Your task to perform on an android device: Open Amazon Image 0: 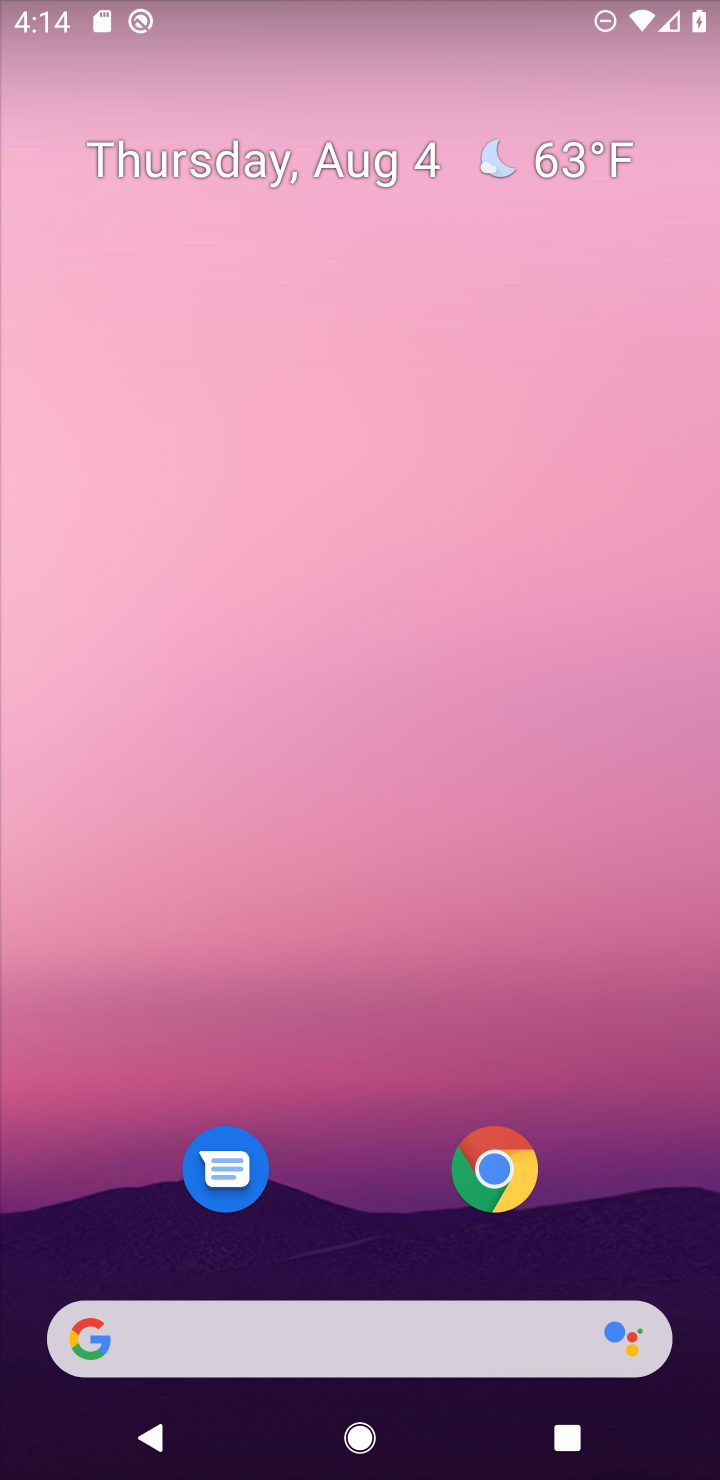
Step 0: click (513, 1190)
Your task to perform on an android device: Open Amazon Image 1: 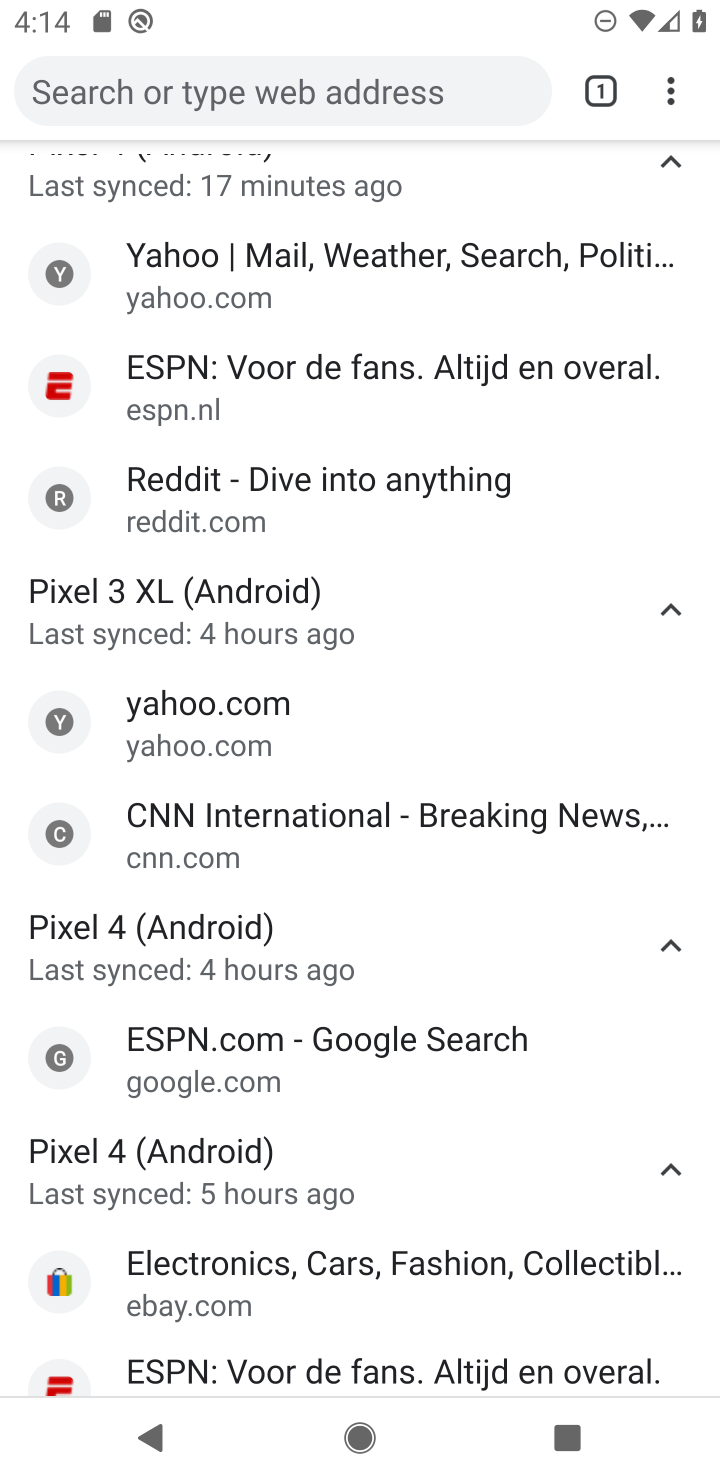
Step 1: click (354, 92)
Your task to perform on an android device: Open Amazon Image 2: 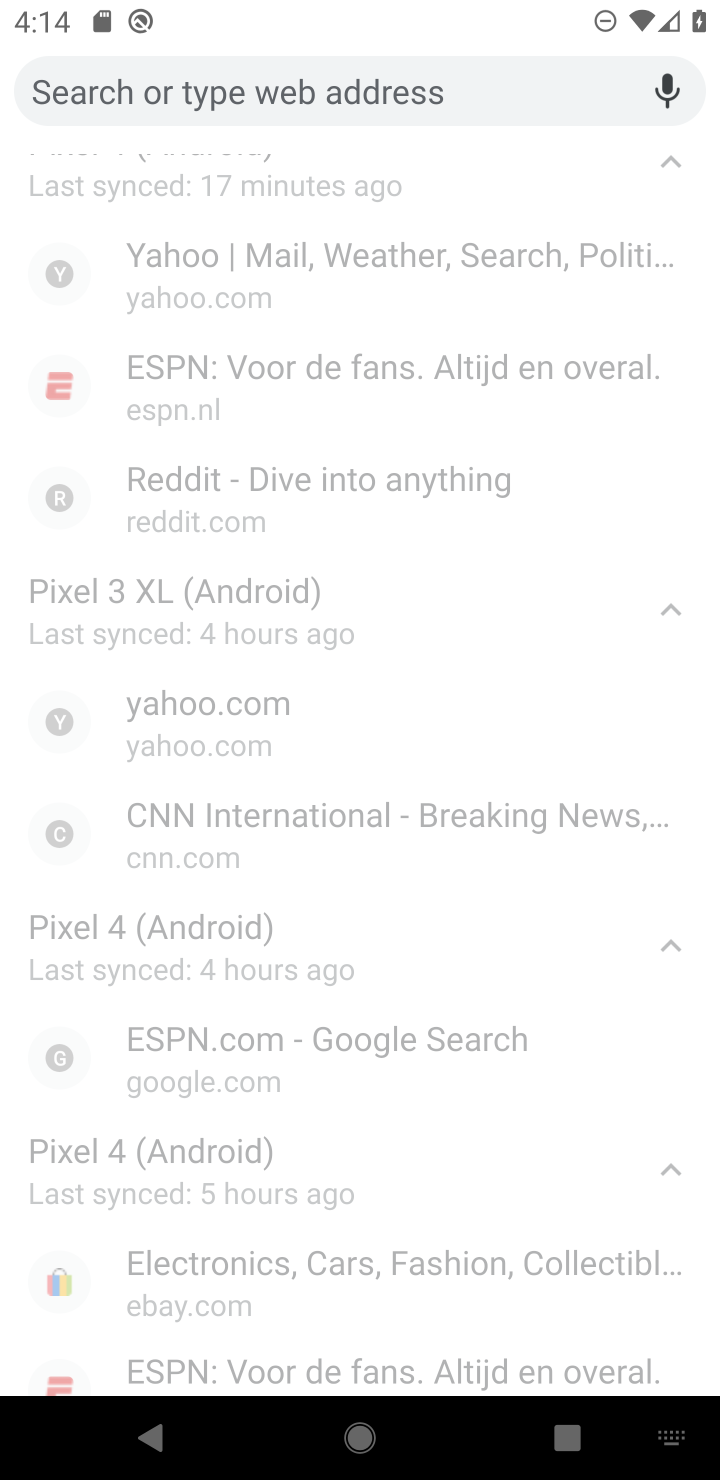
Step 2: type "Amazon"
Your task to perform on an android device: Open Amazon Image 3: 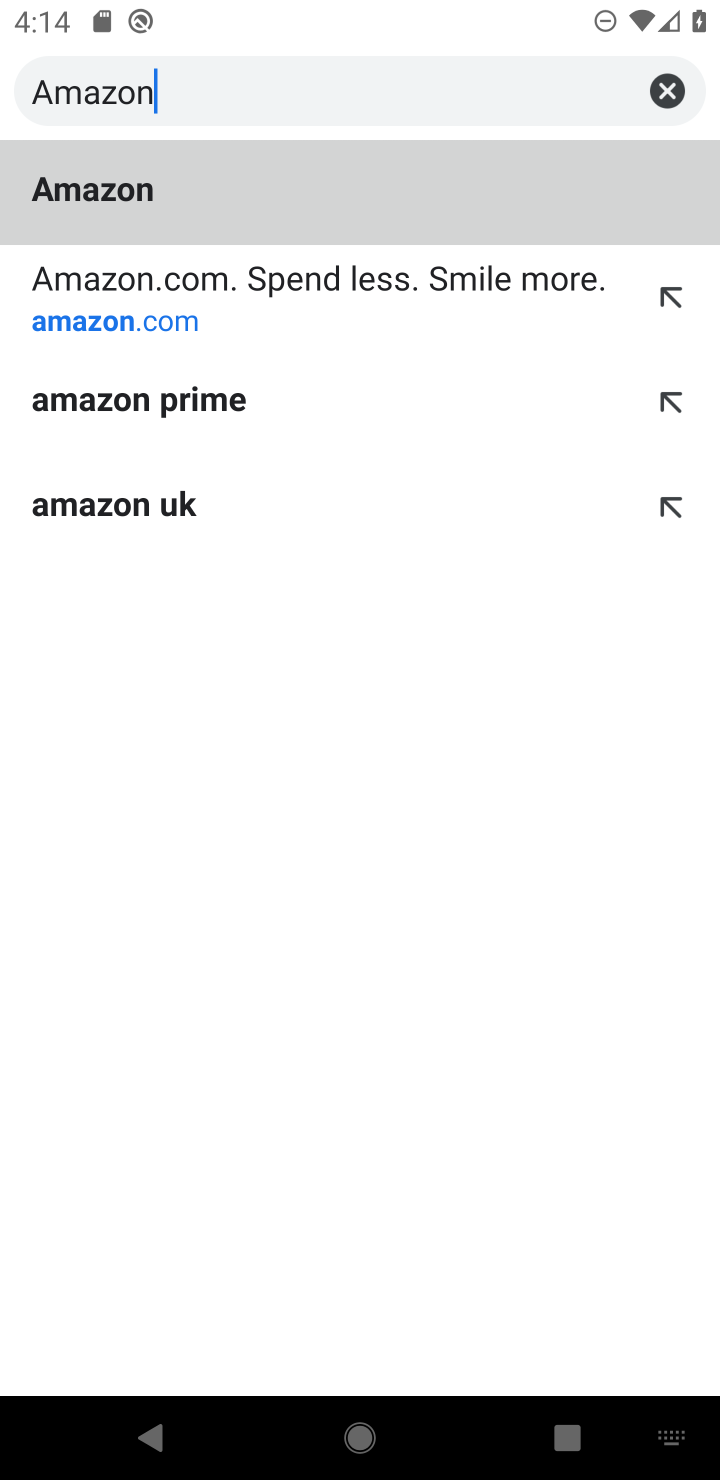
Step 3: click (332, 85)
Your task to perform on an android device: Open Amazon Image 4: 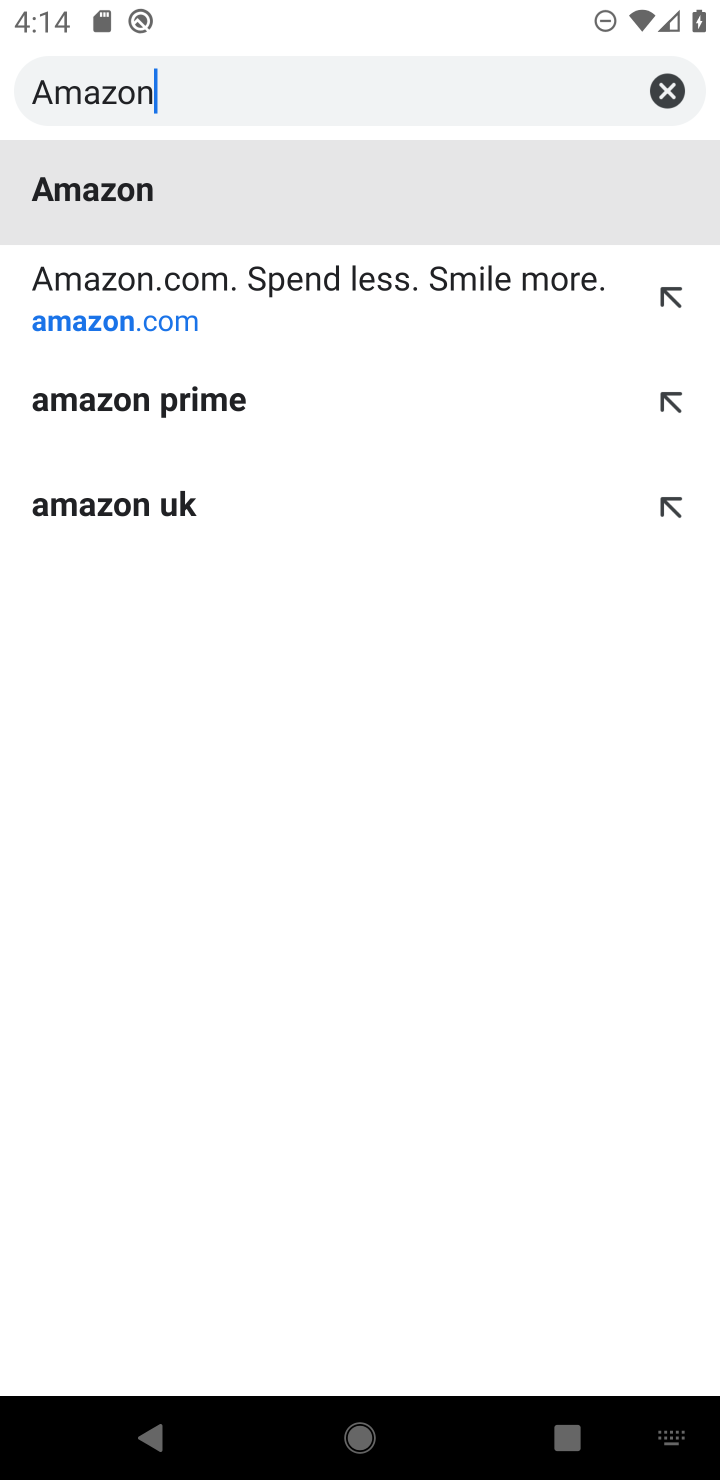
Step 4: click (173, 296)
Your task to perform on an android device: Open Amazon Image 5: 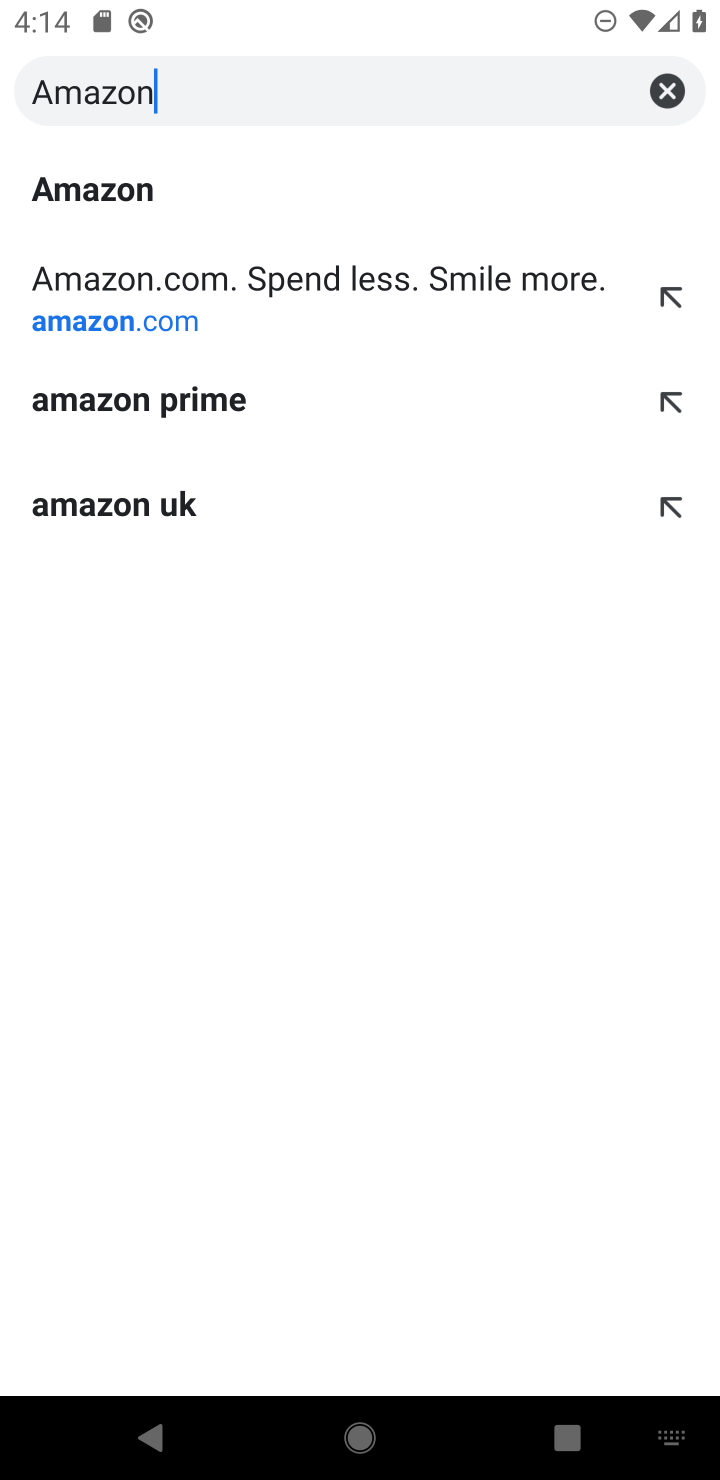
Step 5: click (103, 316)
Your task to perform on an android device: Open Amazon Image 6: 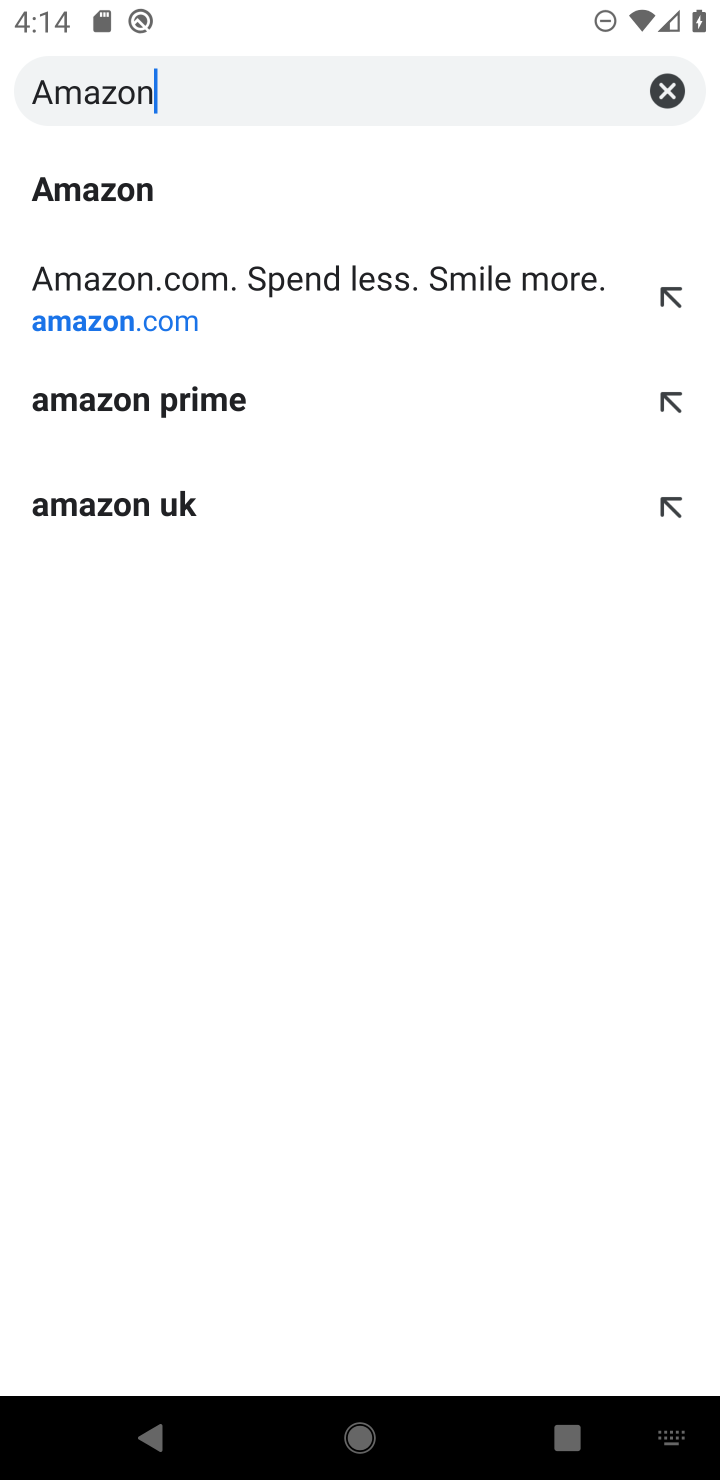
Step 6: click (243, 313)
Your task to perform on an android device: Open Amazon Image 7: 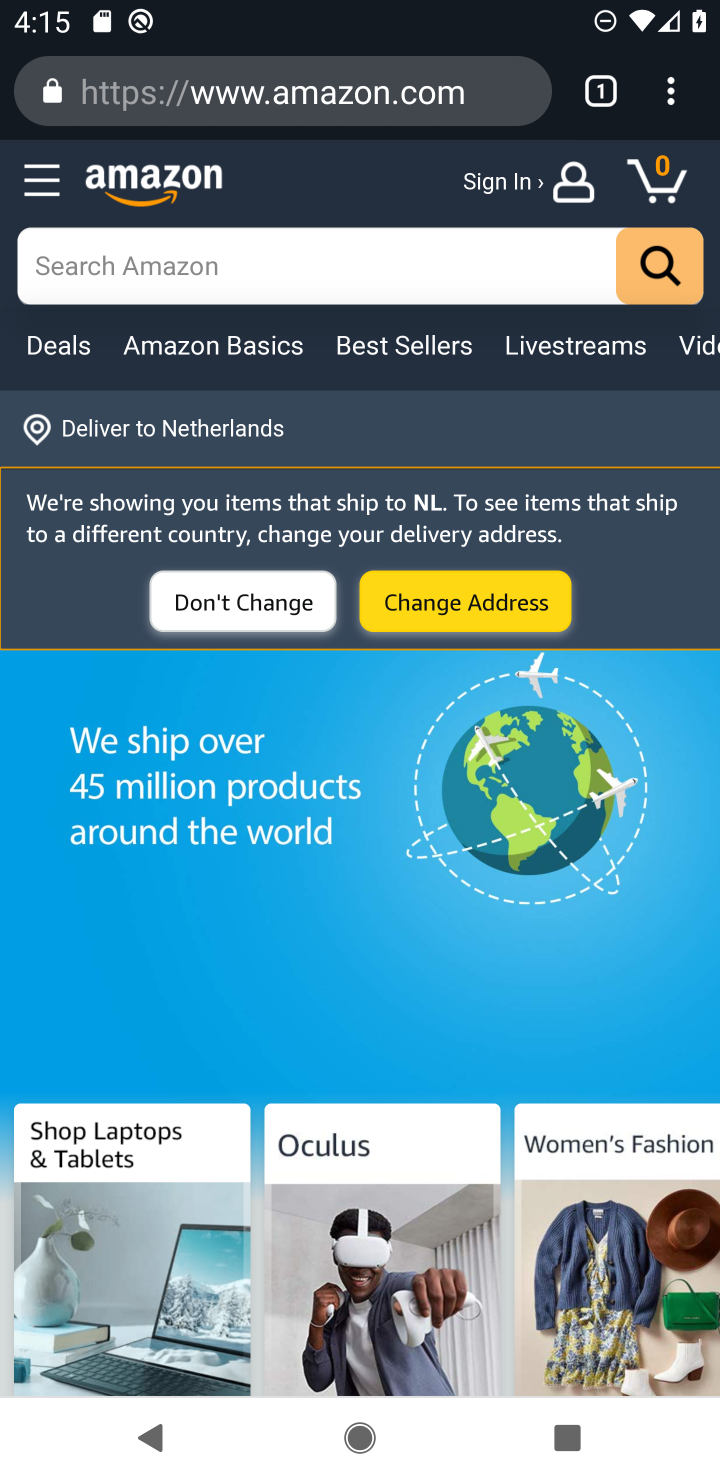
Step 7: task complete